Your task to perform on an android device: set default search engine in the chrome app Image 0: 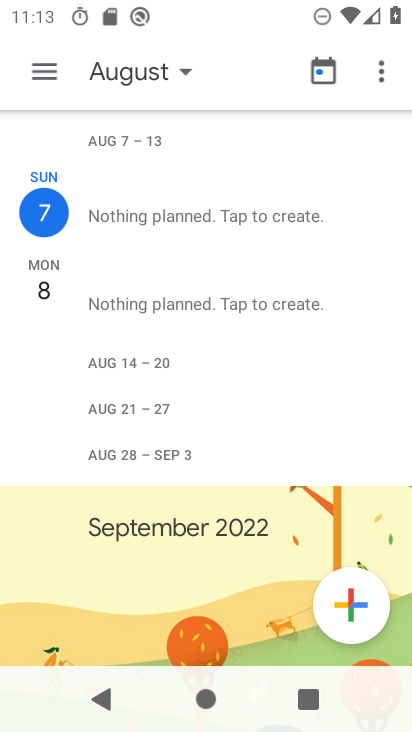
Step 0: press home button
Your task to perform on an android device: set default search engine in the chrome app Image 1: 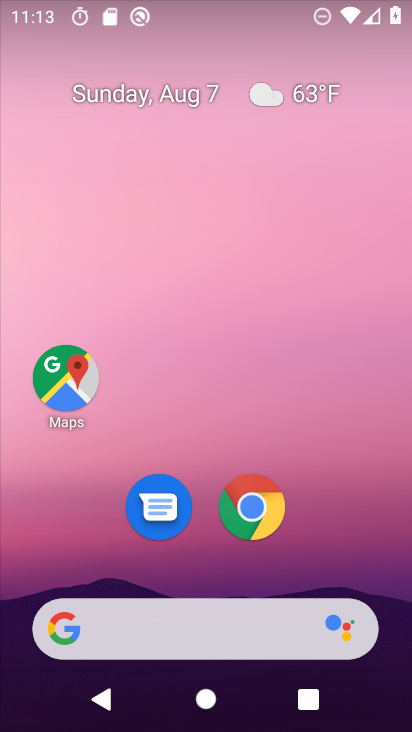
Step 1: drag from (349, 547) to (239, 13)
Your task to perform on an android device: set default search engine in the chrome app Image 2: 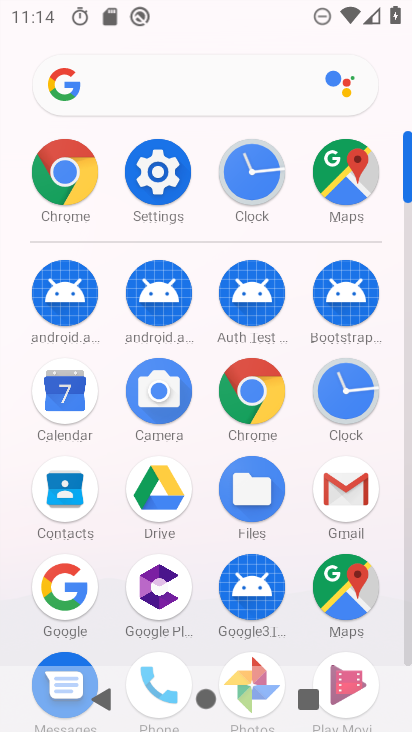
Step 2: click (258, 393)
Your task to perform on an android device: set default search engine in the chrome app Image 3: 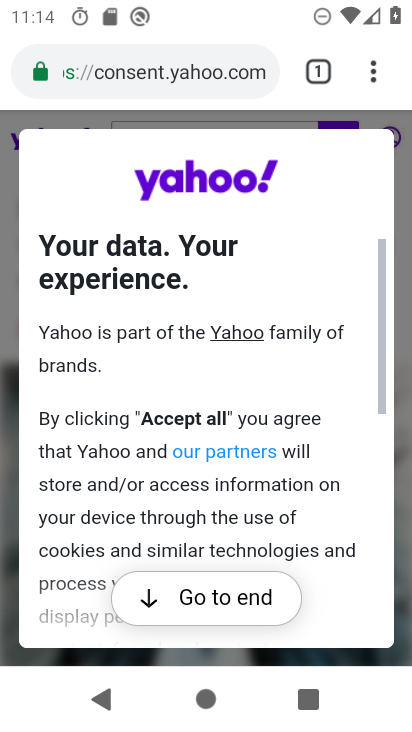
Step 3: drag from (372, 56) to (133, 500)
Your task to perform on an android device: set default search engine in the chrome app Image 4: 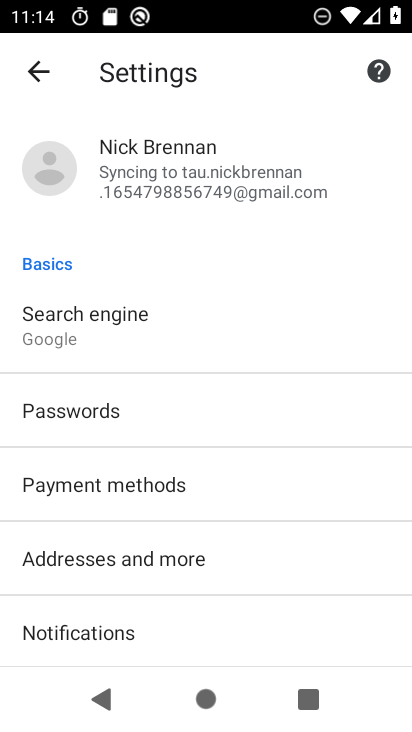
Step 4: click (117, 346)
Your task to perform on an android device: set default search engine in the chrome app Image 5: 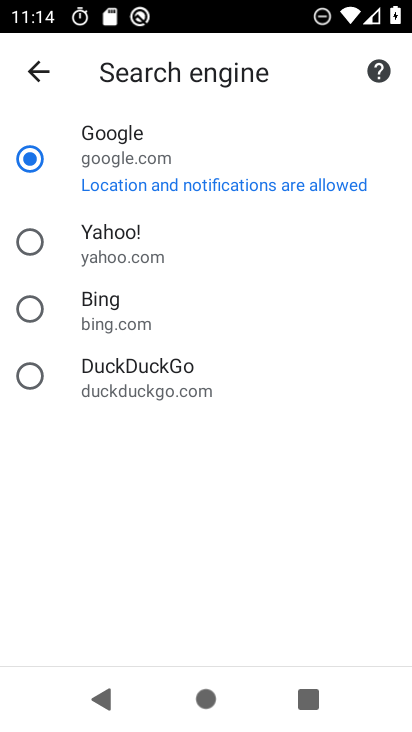
Step 5: task complete